Your task to perform on an android device: open a bookmark in the chrome app Image 0: 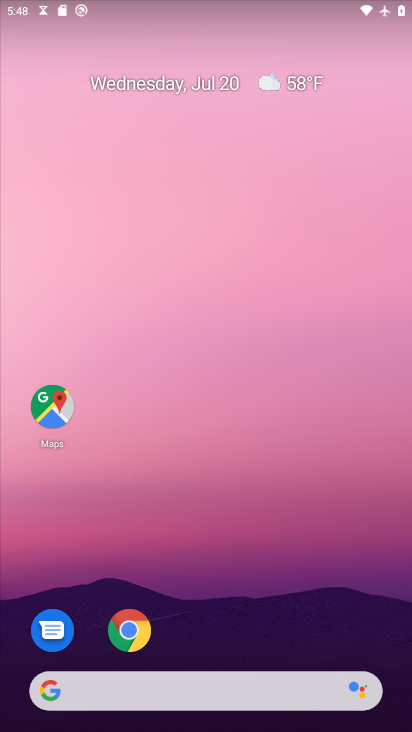
Step 0: press home button
Your task to perform on an android device: open a bookmark in the chrome app Image 1: 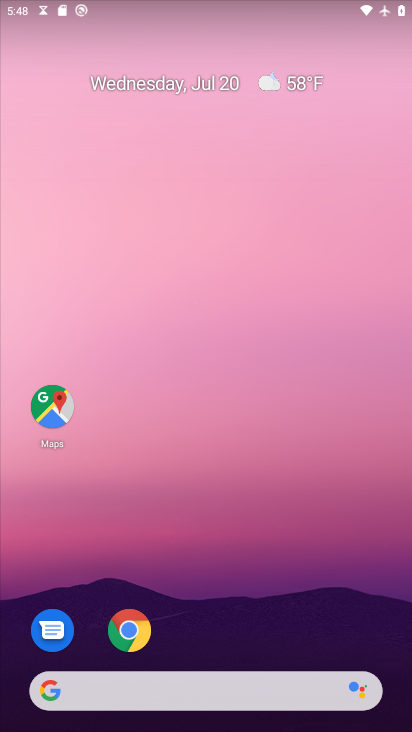
Step 1: drag from (284, 645) to (261, 316)
Your task to perform on an android device: open a bookmark in the chrome app Image 2: 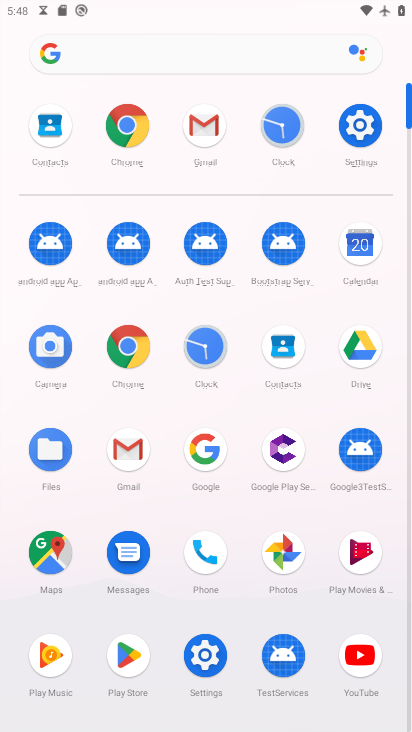
Step 2: click (134, 109)
Your task to perform on an android device: open a bookmark in the chrome app Image 3: 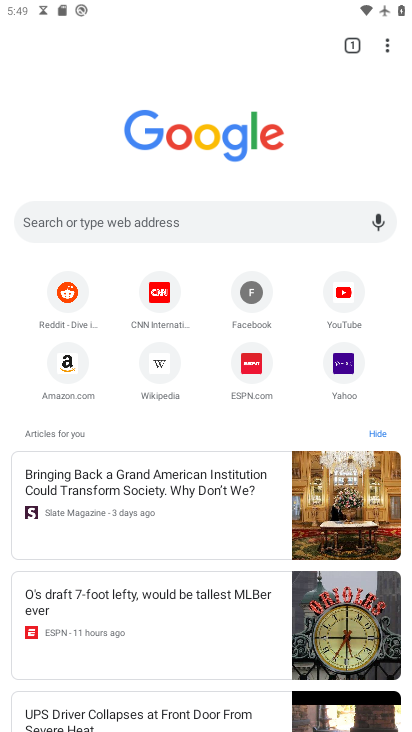
Step 3: drag from (406, 37) to (225, 171)
Your task to perform on an android device: open a bookmark in the chrome app Image 4: 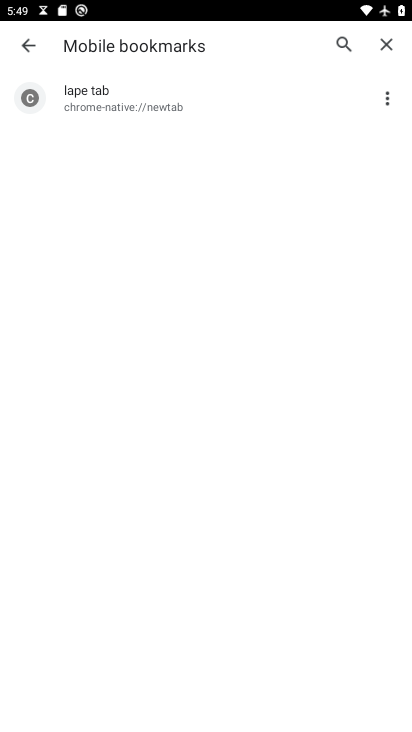
Step 4: click (109, 89)
Your task to perform on an android device: open a bookmark in the chrome app Image 5: 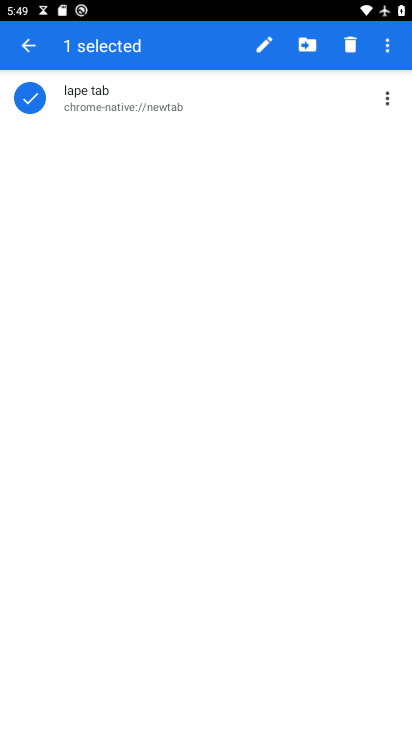
Step 5: click (20, 46)
Your task to perform on an android device: open a bookmark in the chrome app Image 6: 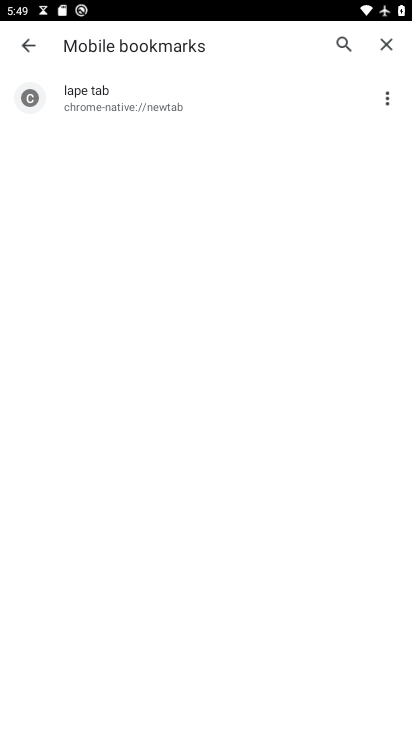
Step 6: task complete